Your task to perform on an android device: Open notification settings Image 0: 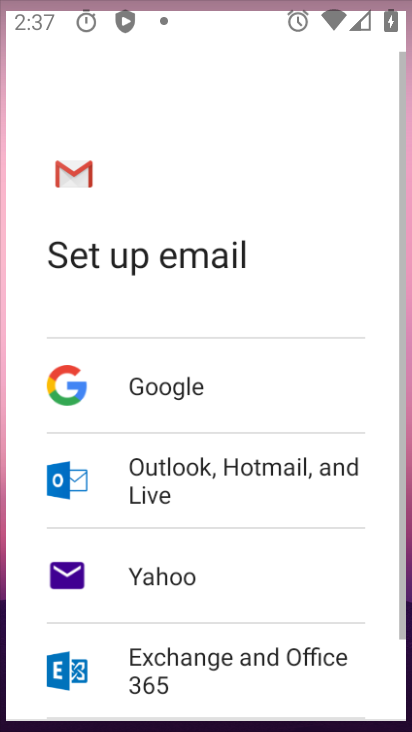
Step 0: click (0, 310)
Your task to perform on an android device: Open notification settings Image 1: 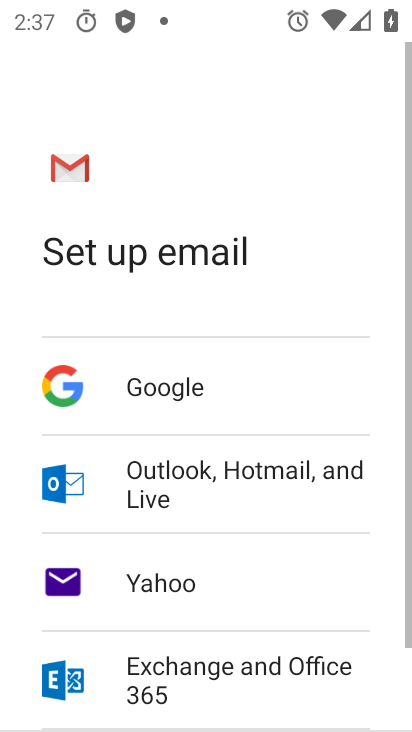
Step 1: press home button
Your task to perform on an android device: Open notification settings Image 2: 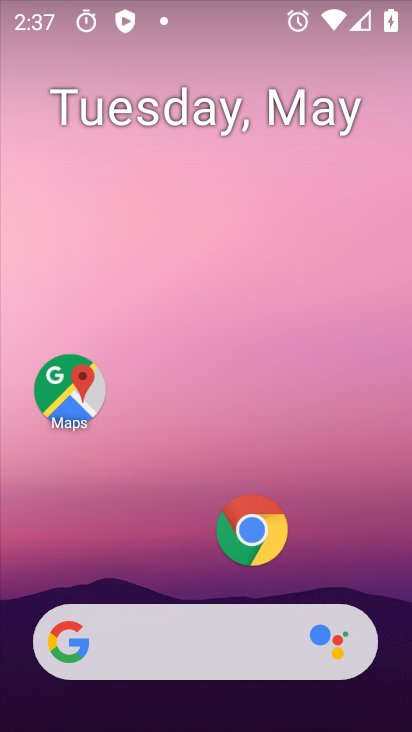
Step 2: drag from (178, 582) to (71, 0)
Your task to perform on an android device: Open notification settings Image 3: 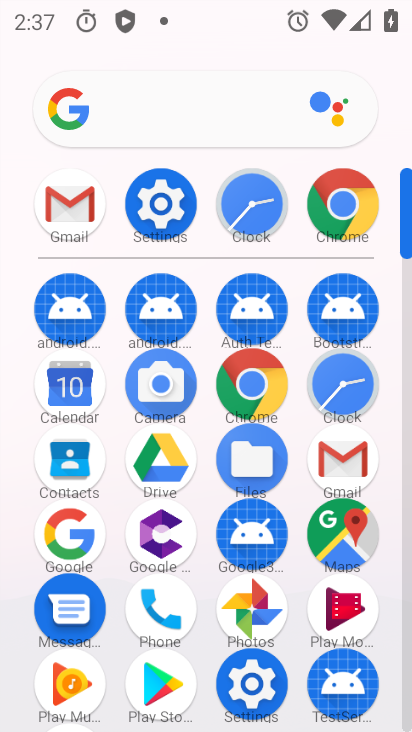
Step 3: click (140, 205)
Your task to perform on an android device: Open notification settings Image 4: 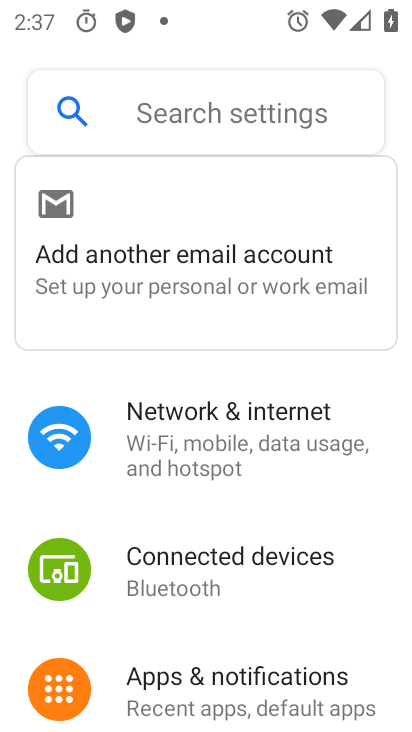
Step 4: click (203, 714)
Your task to perform on an android device: Open notification settings Image 5: 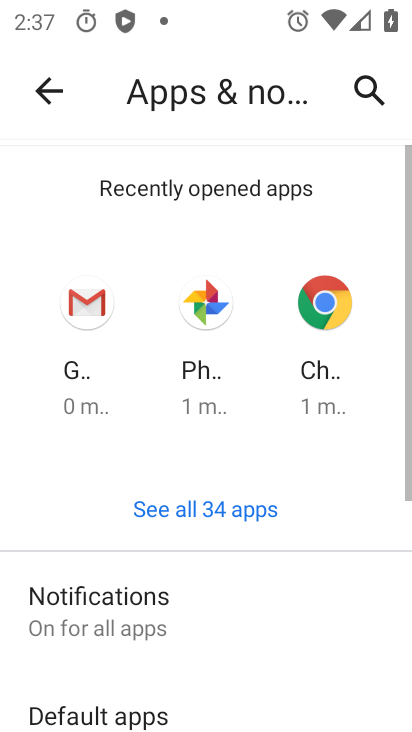
Step 5: click (127, 592)
Your task to perform on an android device: Open notification settings Image 6: 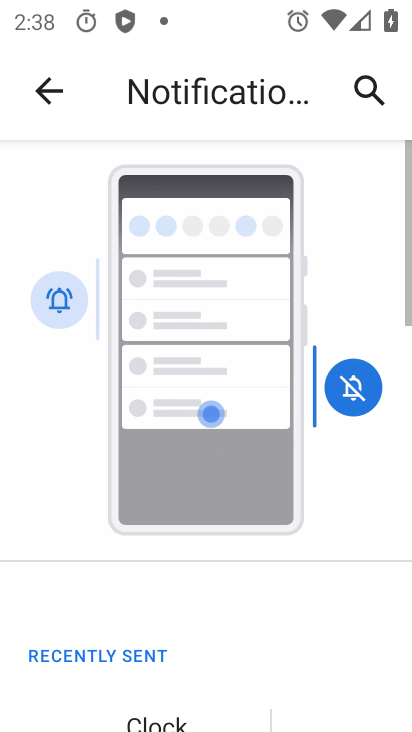
Step 6: drag from (167, 617) to (78, 1)
Your task to perform on an android device: Open notification settings Image 7: 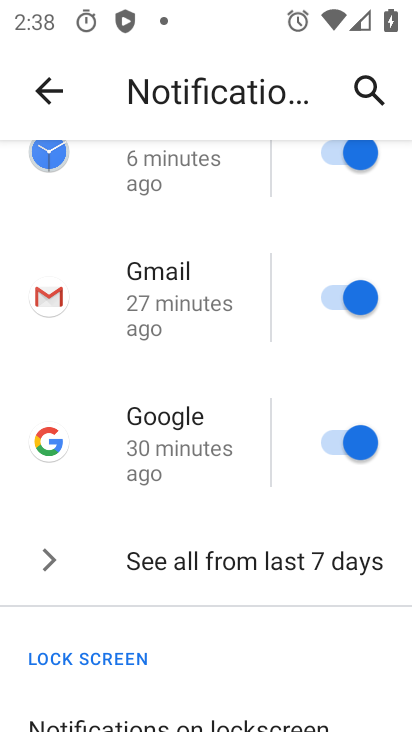
Step 7: drag from (150, 549) to (98, 106)
Your task to perform on an android device: Open notification settings Image 8: 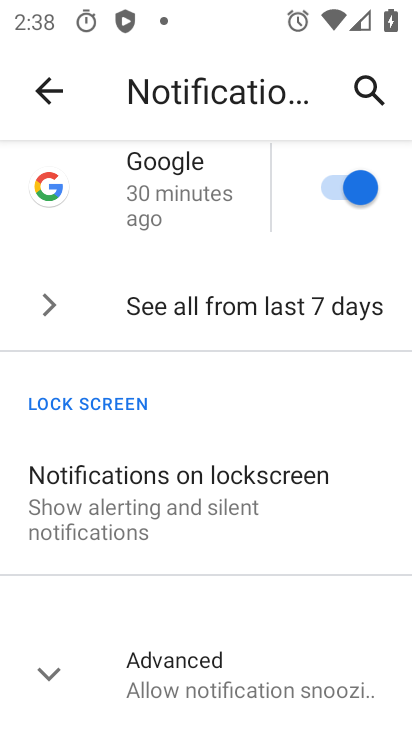
Step 8: click (148, 319)
Your task to perform on an android device: Open notification settings Image 9: 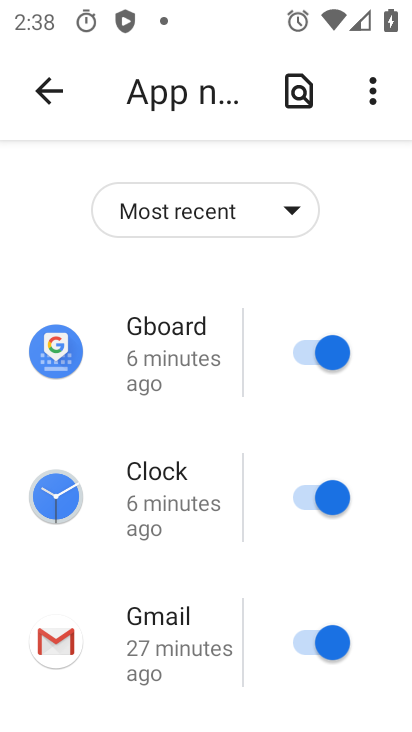
Step 9: click (183, 212)
Your task to perform on an android device: Open notification settings Image 10: 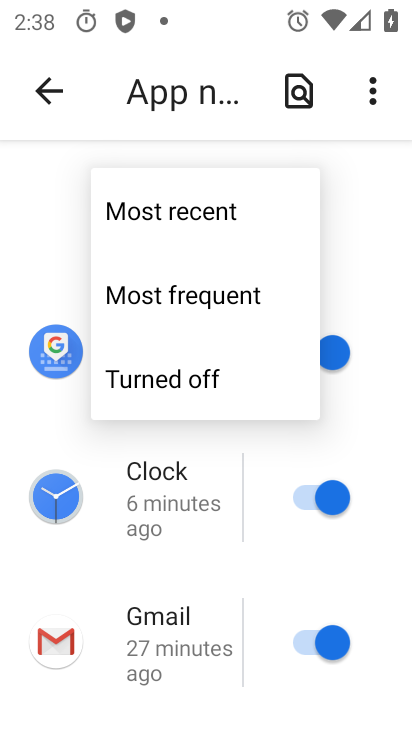
Step 10: task complete